Your task to perform on an android device: Go to Maps Image 0: 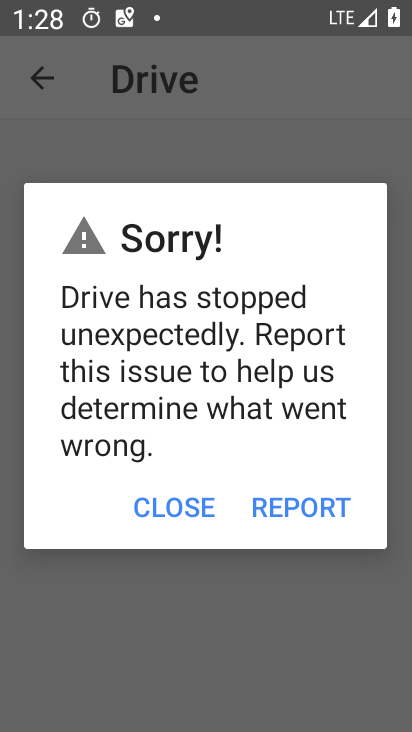
Step 0: press home button
Your task to perform on an android device: Go to Maps Image 1: 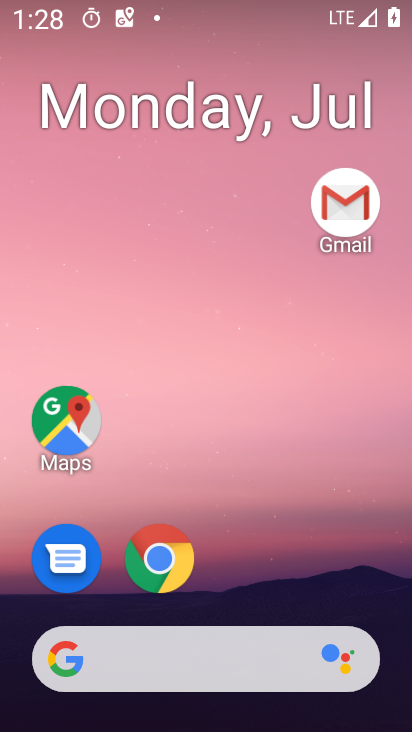
Step 1: drag from (337, 547) to (327, 90)
Your task to perform on an android device: Go to Maps Image 2: 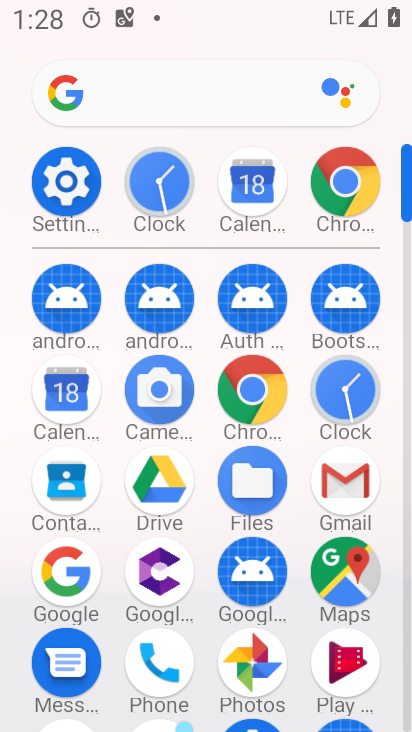
Step 2: drag from (287, 527) to (299, 277)
Your task to perform on an android device: Go to Maps Image 3: 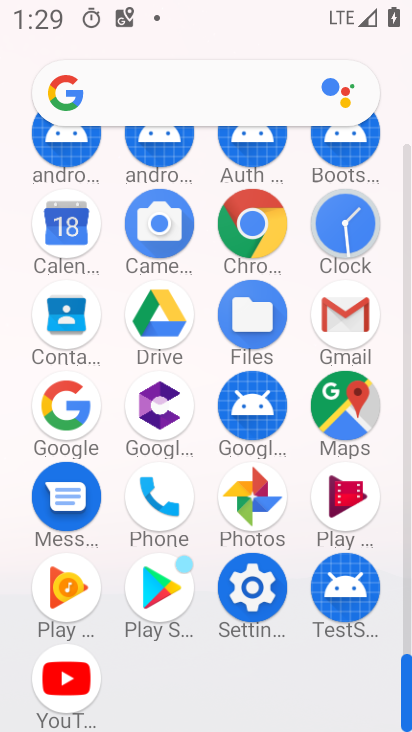
Step 3: click (371, 408)
Your task to perform on an android device: Go to Maps Image 4: 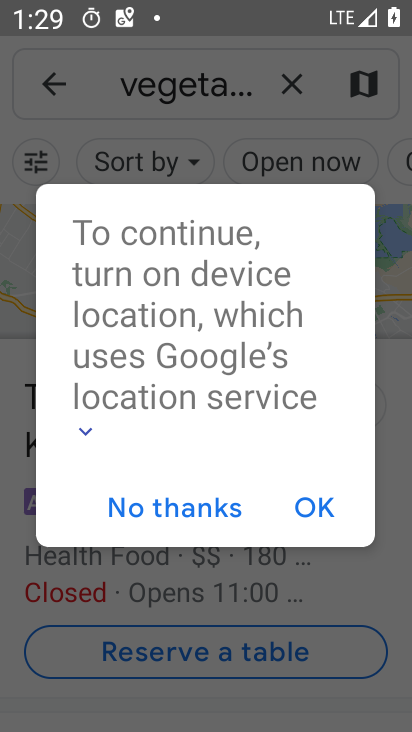
Step 4: click (205, 517)
Your task to perform on an android device: Go to Maps Image 5: 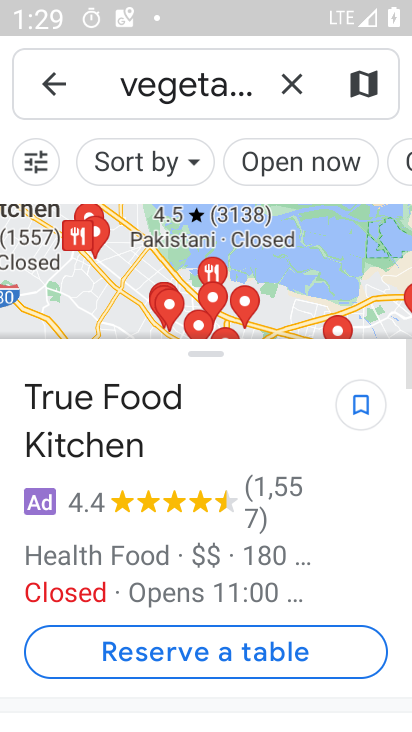
Step 5: task complete